Your task to perform on an android device: Go to CNN.com Image 0: 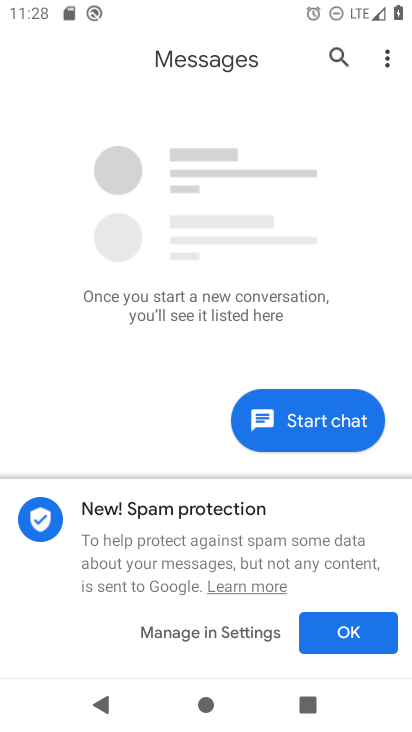
Step 0: press home button
Your task to perform on an android device: Go to CNN.com Image 1: 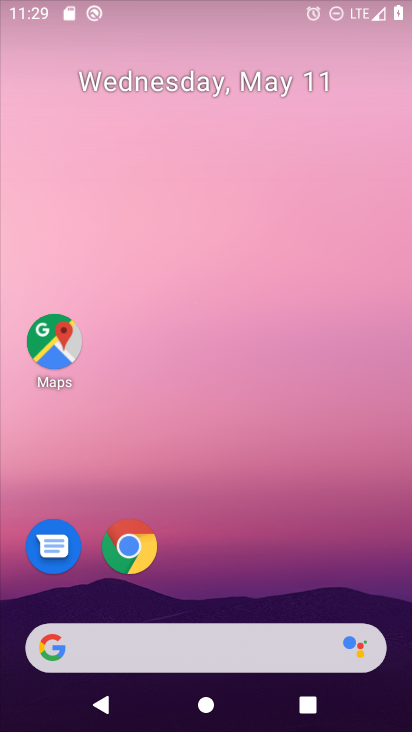
Step 1: drag from (386, 617) to (180, 99)
Your task to perform on an android device: Go to CNN.com Image 2: 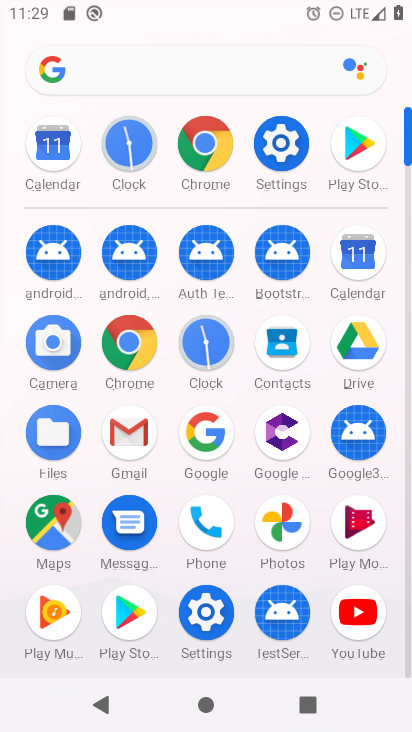
Step 2: click (131, 356)
Your task to perform on an android device: Go to CNN.com Image 3: 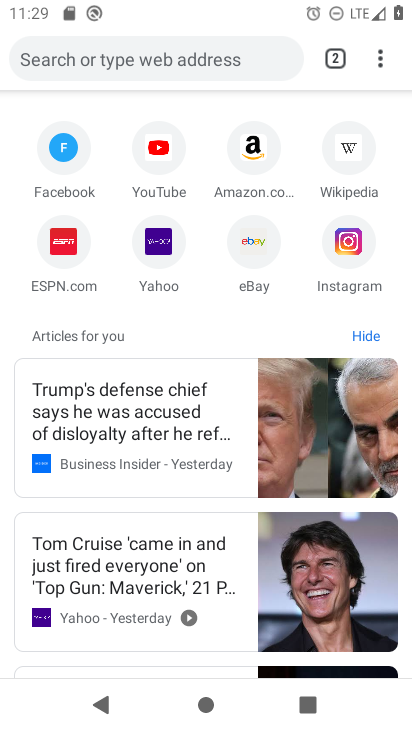
Step 3: click (124, 60)
Your task to perform on an android device: Go to CNN.com Image 4: 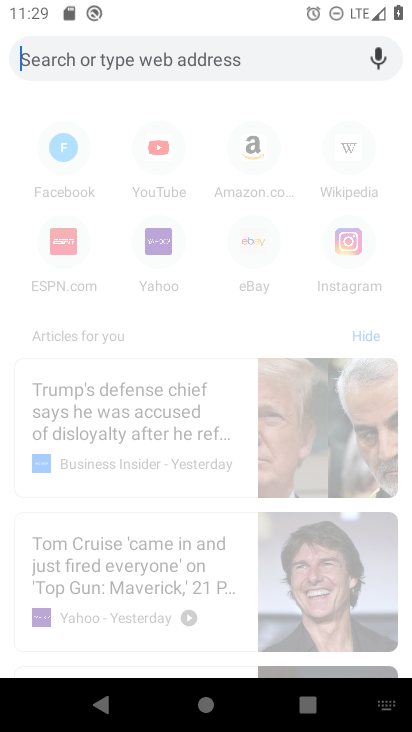
Step 4: type "cnn.com"
Your task to perform on an android device: Go to CNN.com Image 5: 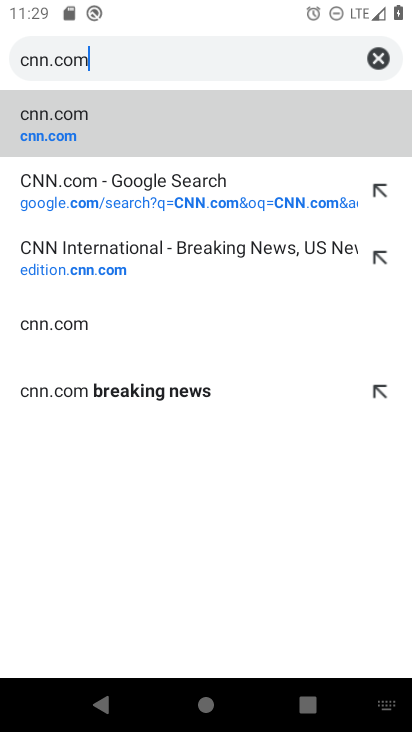
Step 5: click (148, 118)
Your task to perform on an android device: Go to CNN.com Image 6: 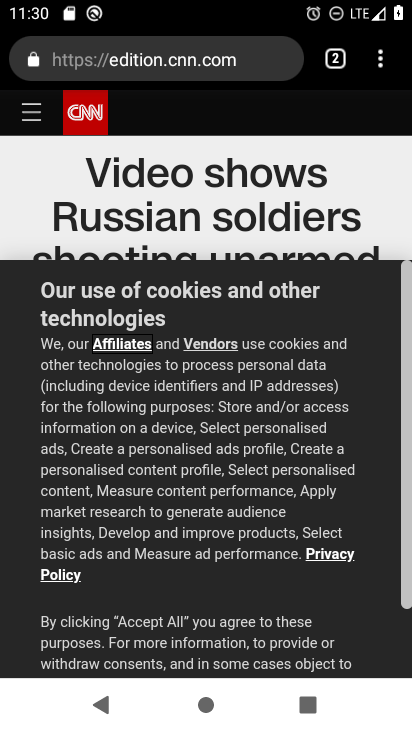
Step 6: task complete